Your task to perform on an android device: turn on airplane mode Image 0: 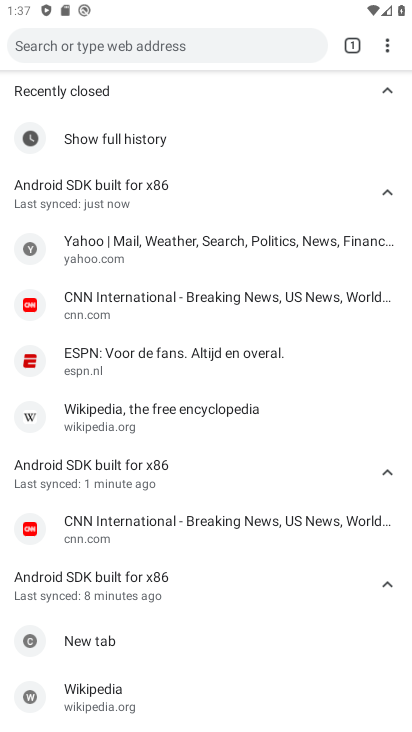
Step 0: press home button
Your task to perform on an android device: turn on airplane mode Image 1: 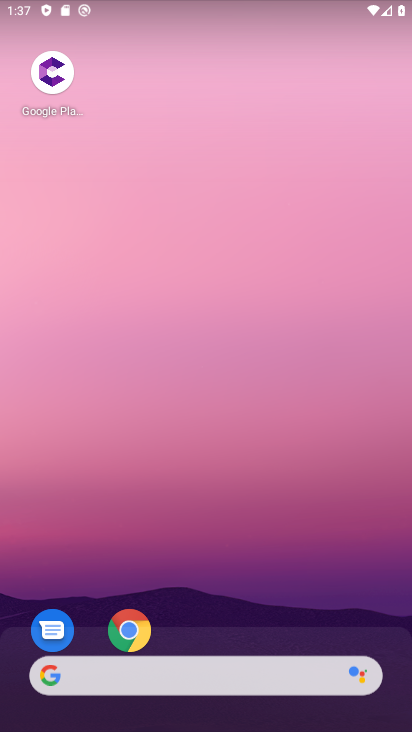
Step 1: drag from (155, 676) to (178, 58)
Your task to perform on an android device: turn on airplane mode Image 2: 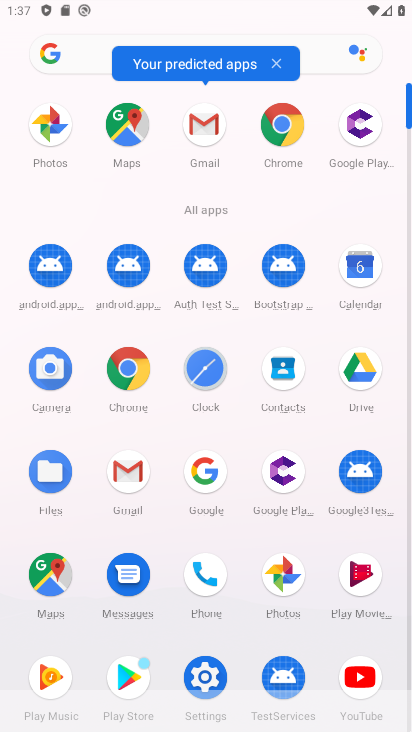
Step 2: click (209, 674)
Your task to perform on an android device: turn on airplane mode Image 3: 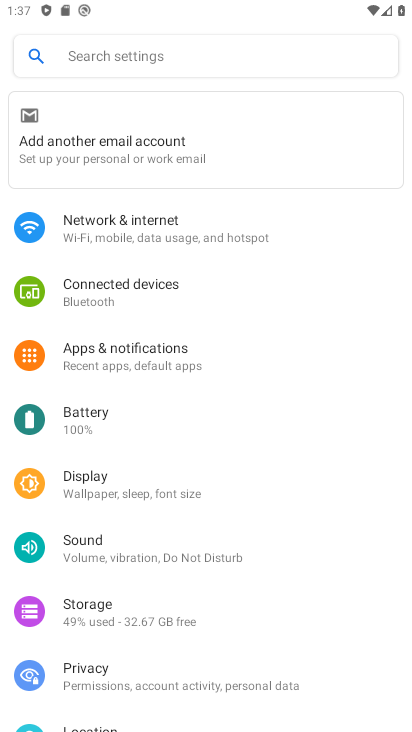
Step 3: click (130, 236)
Your task to perform on an android device: turn on airplane mode Image 4: 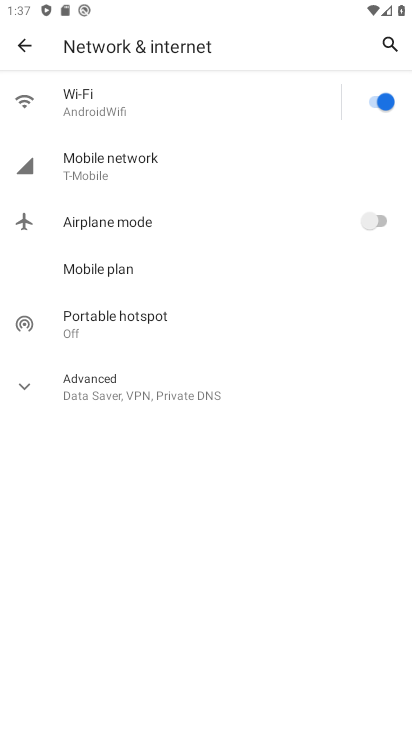
Step 4: click (380, 214)
Your task to perform on an android device: turn on airplane mode Image 5: 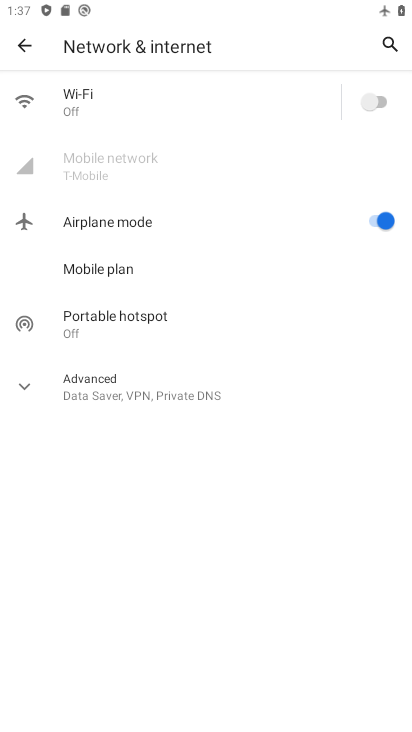
Step 5: task complete